Your task to perform on an android device: Go to Amazon Image 0: 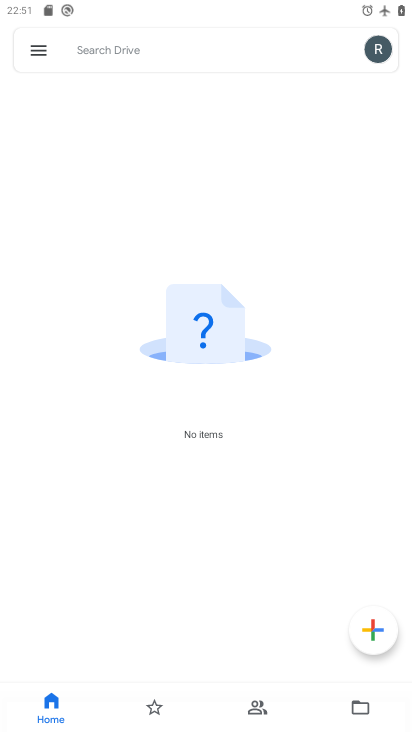
Step 0: press home button
Your task to perform on an android device: Go to Amazon Image 1: 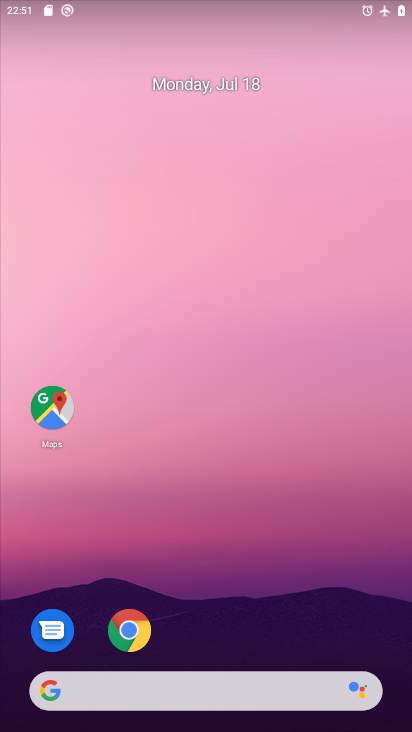
Step 1: click (114, 615)
Your task to perform on an android device: Go to Amazon Image 2: 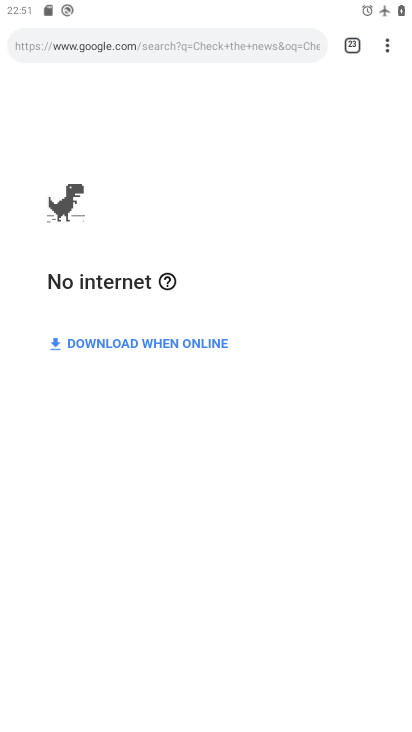
Step 2: click (392, 49)
Your task to perform on an android device: Go to Amazon Image 3: 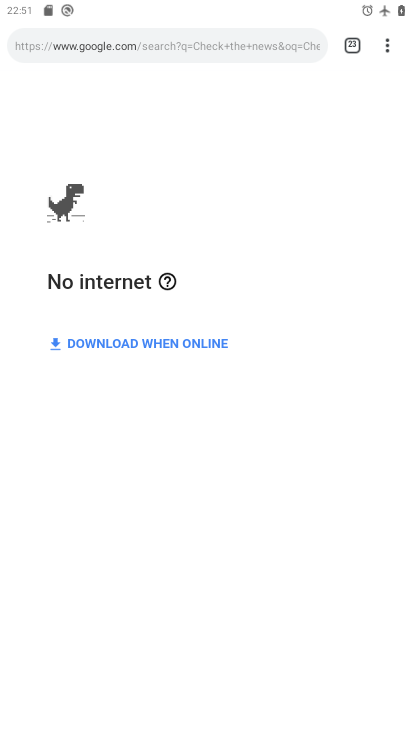
Step 3: click (390, 39)
Your task to perform on an android device: Go to Amazon Image 4: 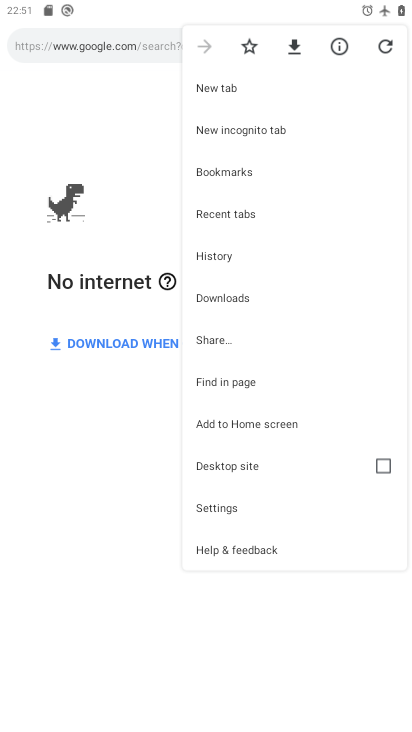
Step 4: click (223, 82)
Your task to perform on an android device: Go to Amazon Image 5: 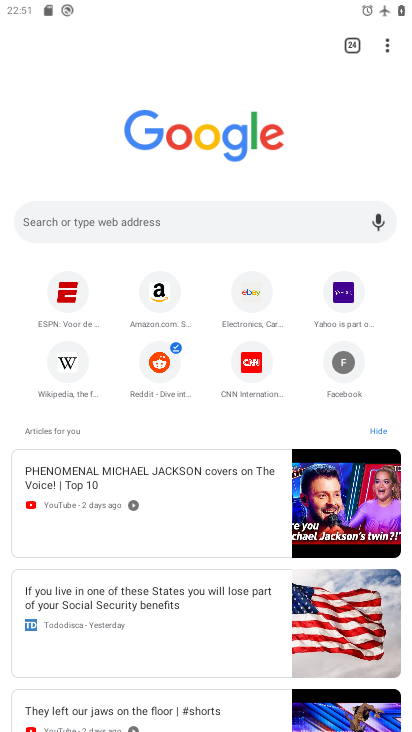
Step 5: click (157, 289)
Your task to perform on an android device: Go to Amazon Image 6: 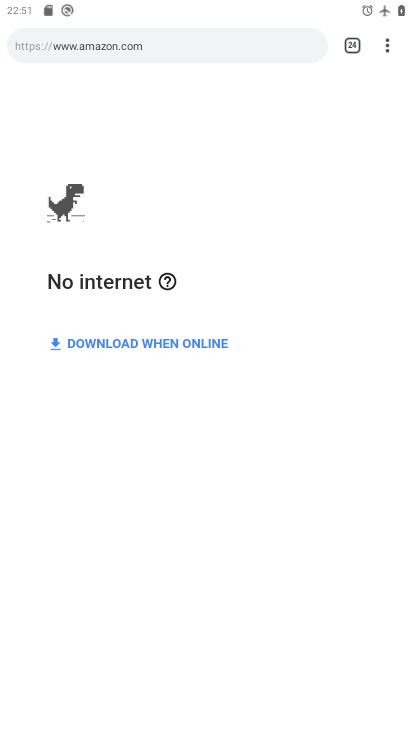
Step 6: task complete